Your task to perform on an android device: clear all cookies in the chrome app Image 0: 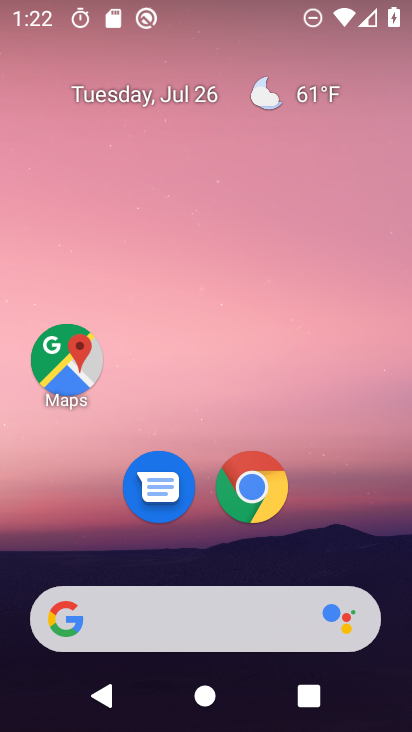
Step 0: click (265, 479)
Your task to perform on an android device: clear all cookies in the chrome app Image 1: 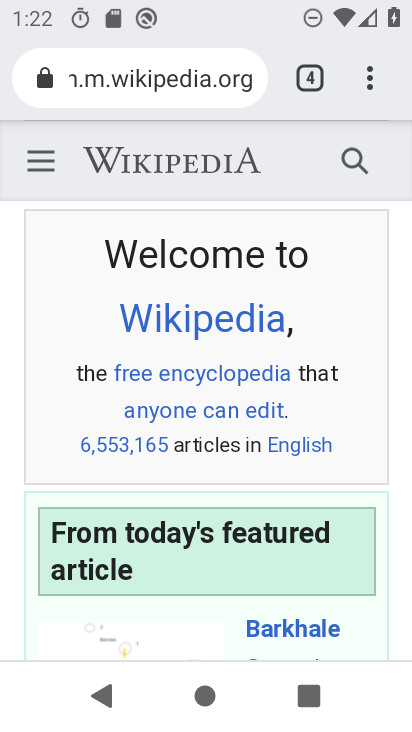
Step 1: drag from (370, 74) to (105, 437)
Your task to perform on an android device: clear all cookies in the chrome app Image 2: 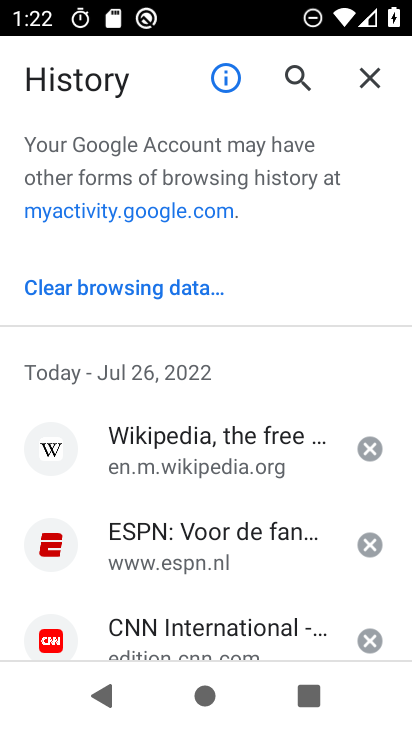
Step 2: click (103, 286)
Your task to perform on an android device: clear all cookies in the chrome app Image 3: 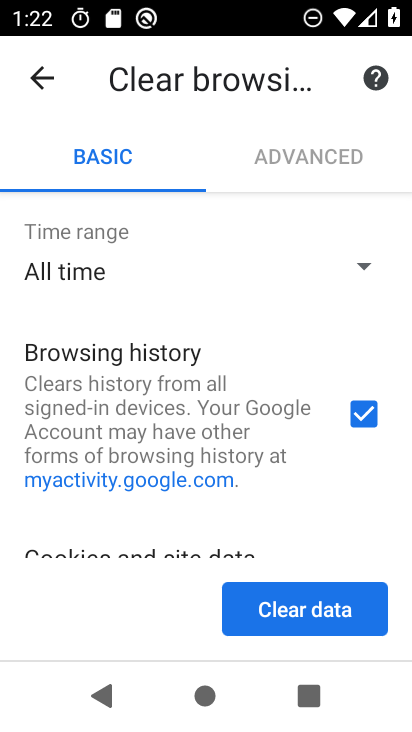
Step 3: drag from (168, 466) to (203, 337)
Your task to perform on an android device: clear all cookies in the chrome app Image 4: 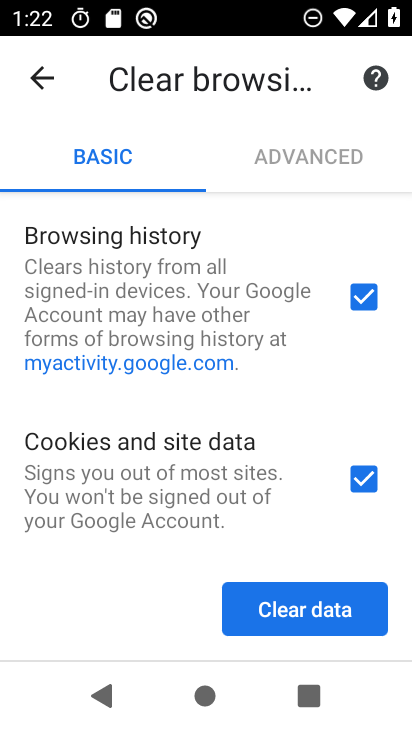
Step 4: click (377, 279)
Your task to perform on an android device: clear all cookies in the chrome app Image 5: 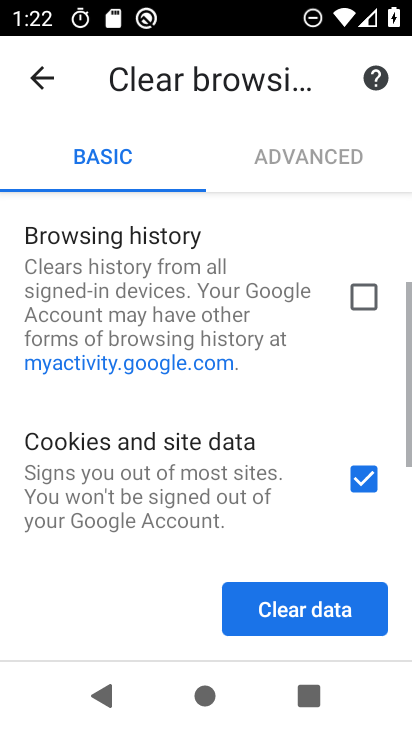
Step 5: drag from (151, 487) to (202, 175)
Your task to perform on an android device: clear all cookies in the chrome app Image 6: 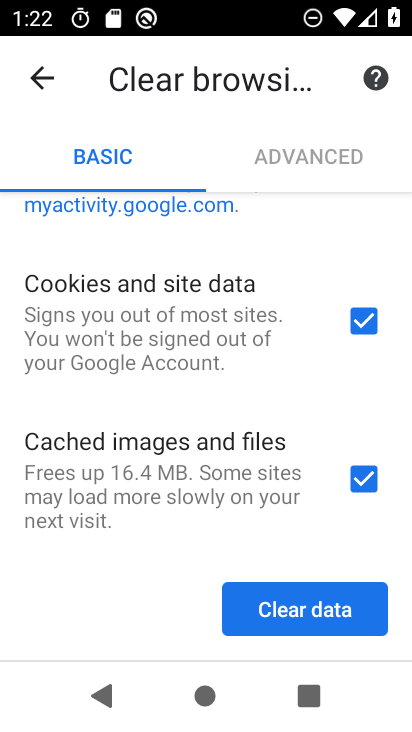
Step 6: click (370, 474)
Your task to perform on an android device: clear all cookies in the chrome app Image 7: 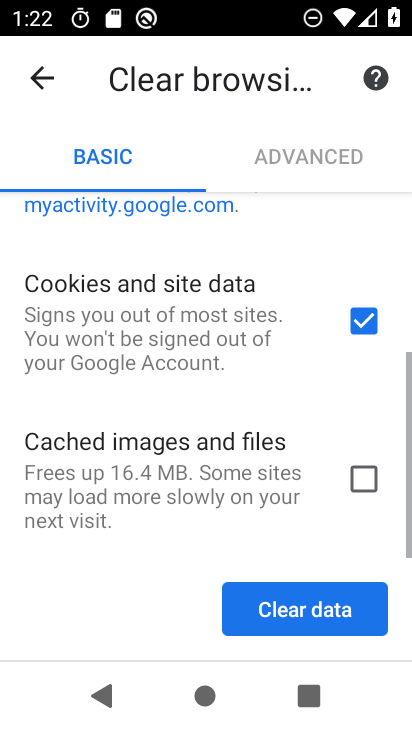
Step 7: click (341, 615)
Your task to perform on an android device: clear all cookies in the chrome app Image 8: 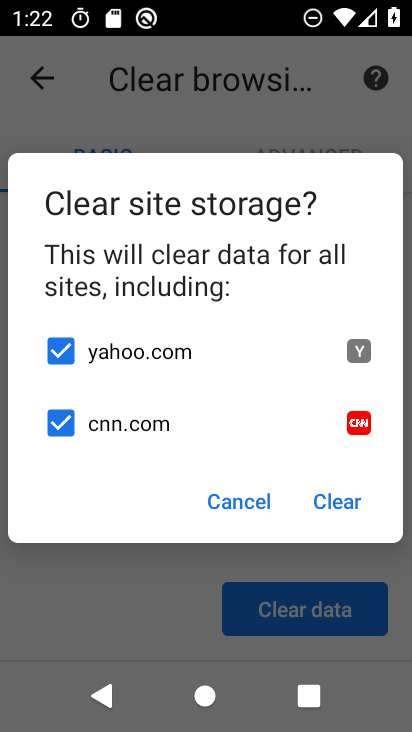
Step 8: click (339, 502)
Your task to perform on an android device: clear all cookies in the chrome app Image 9: 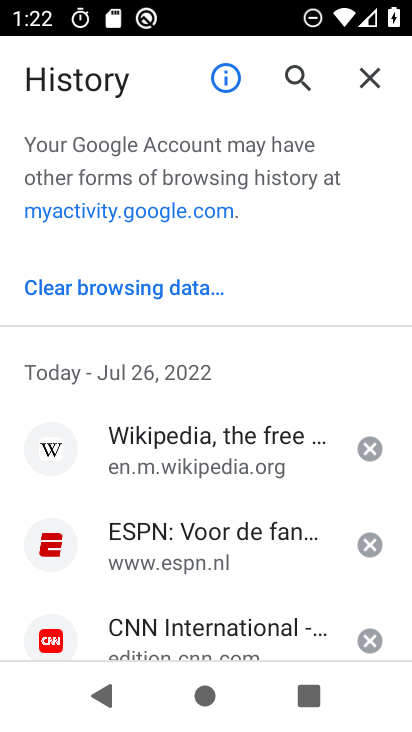
Step 9: task complete